Your task to perform on an android device: uninstall "LiveIn - Share Your Moment" Image 0: 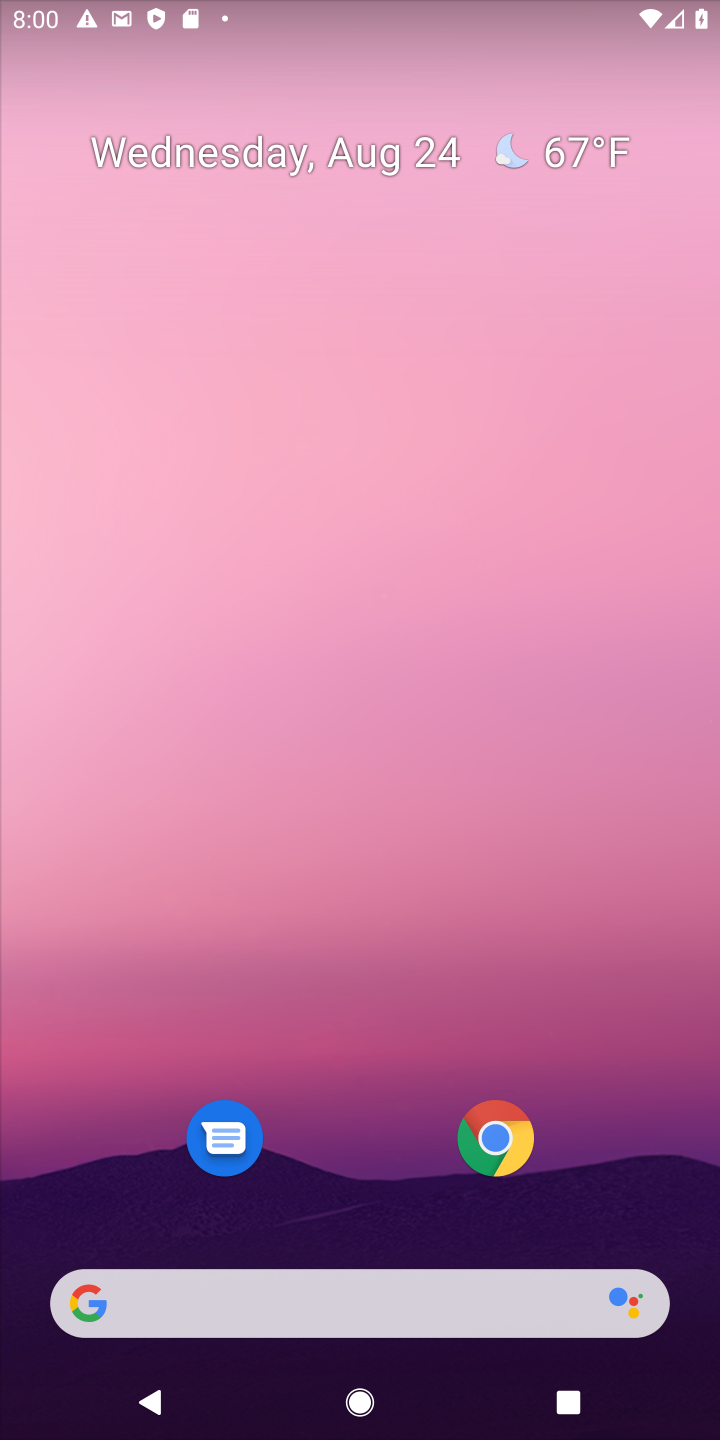
Step 0: drag from (328, 1250) to (705, 272)
Your task to perform on an android device: uninstall "LiveIn - Share Your Moment" Image 1: 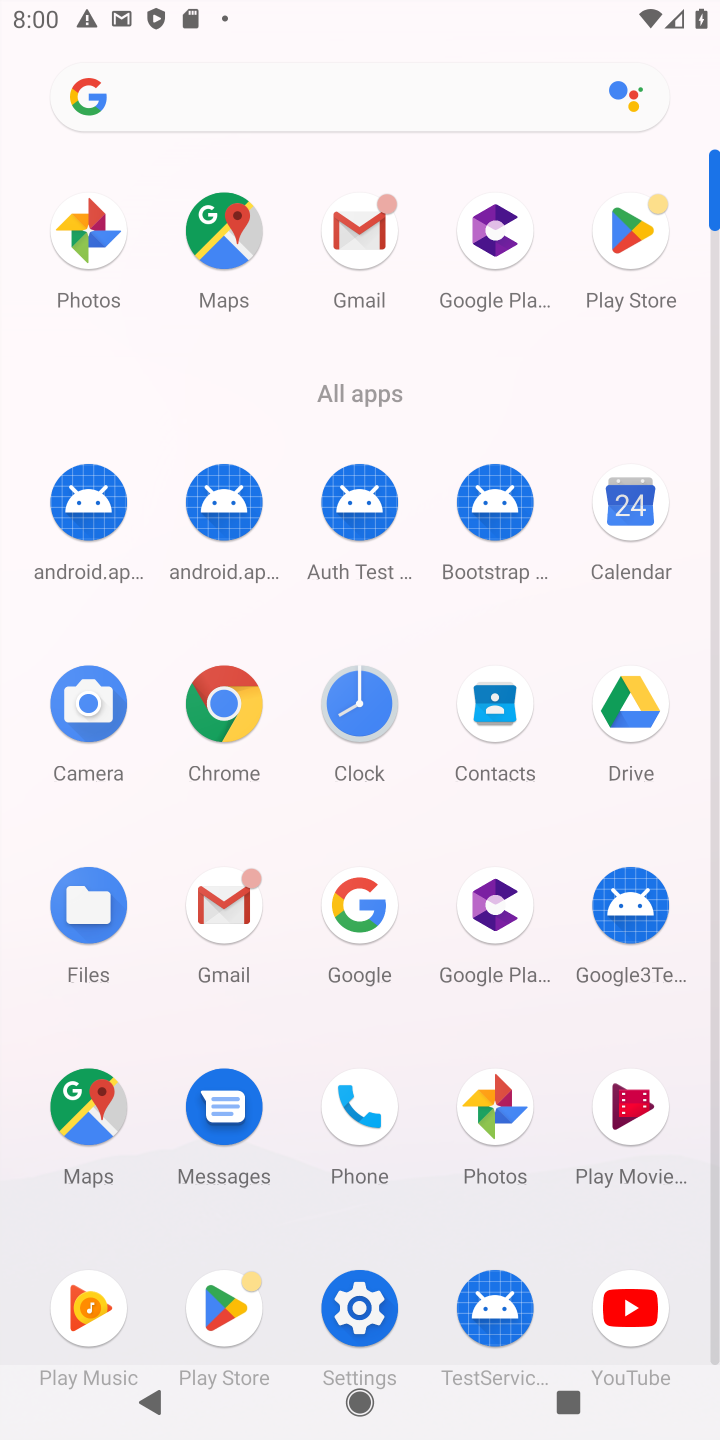
Step 1: click (616, 220)
Your task to perform on an android device: uninstall "LiveIn - Share Your Moment" Image 2: 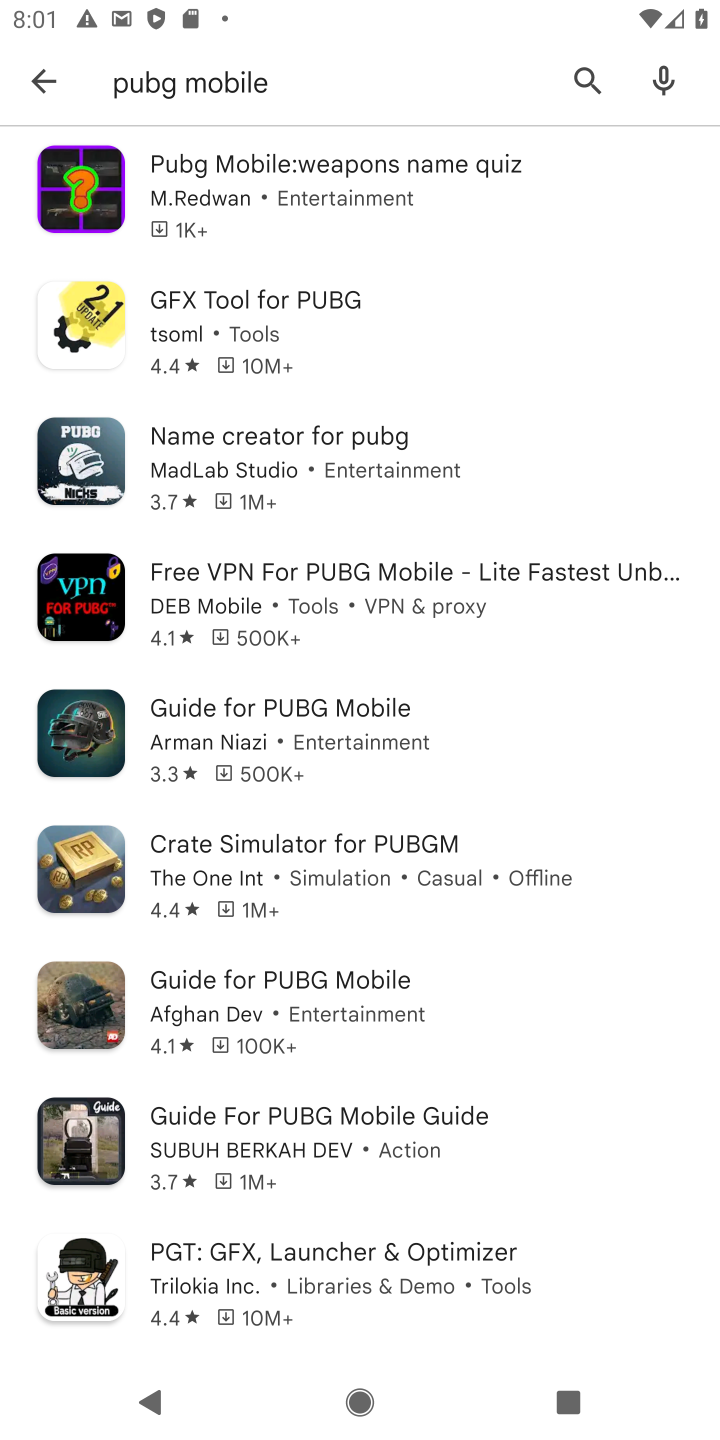
Step 2: click (34, 74)
Your task to perform on an android device: uninstall "LiveIn - Share Your Moment" Image 3: 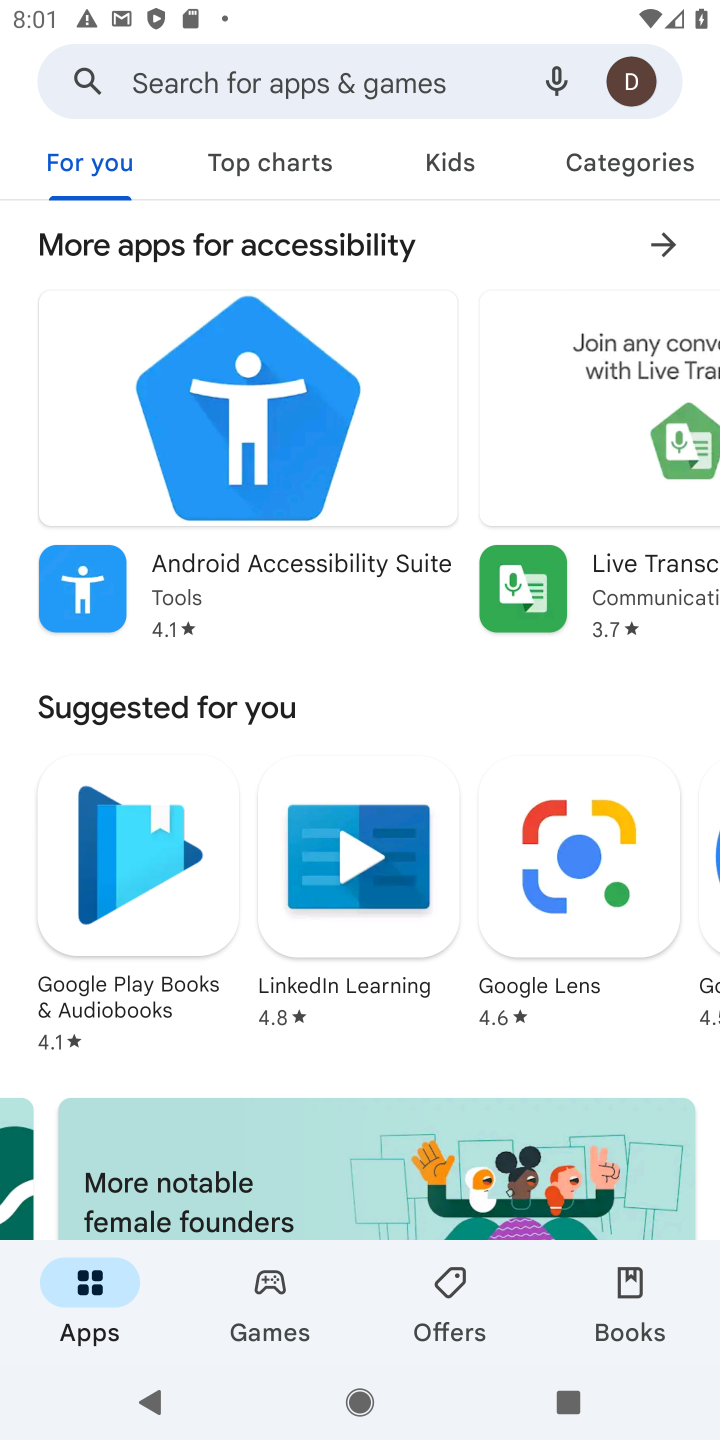
Step 3: click (123, 89)
Your task to perform on an android device: uninstall "LiveIn - Share Your Moment" Image 4: 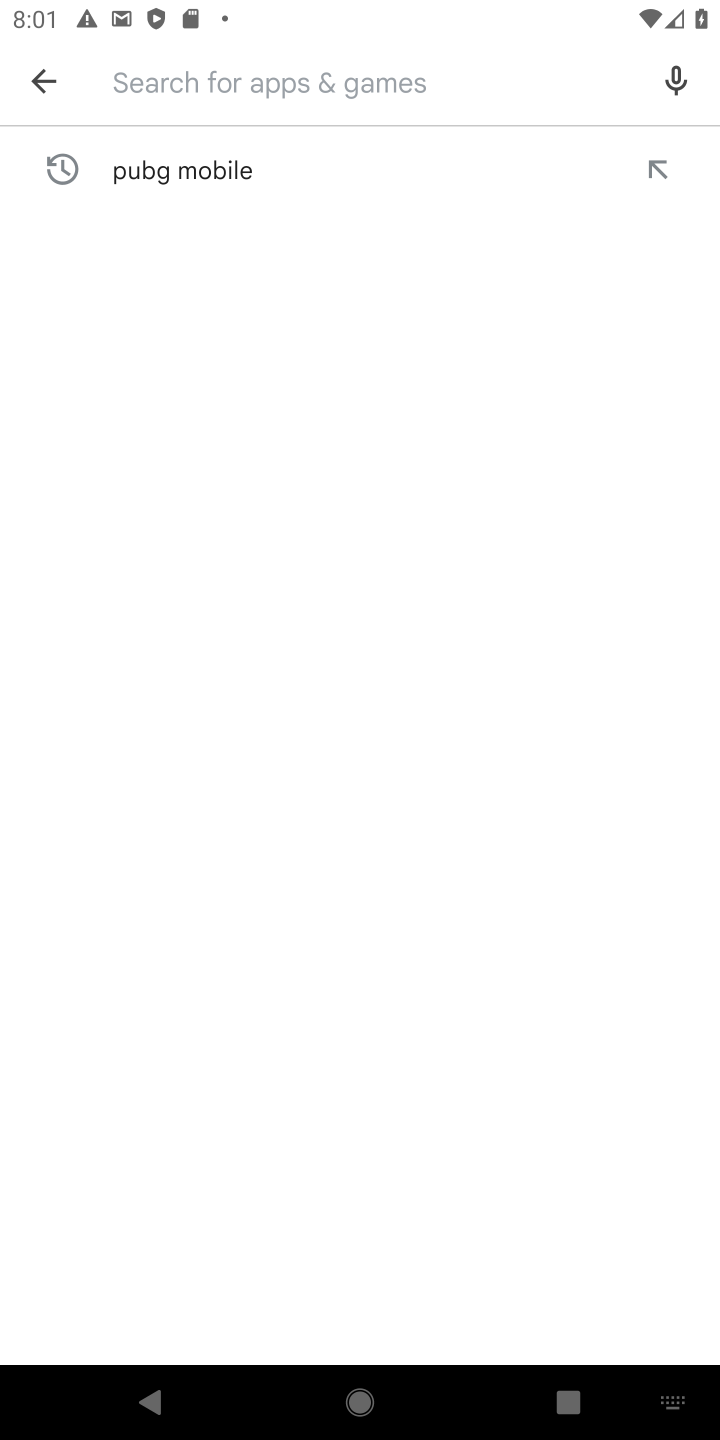
Step 4: type "LiveIn"
Your task to perform on an android device: uninstall "LiveIn - Share Your Moment" Image 5: 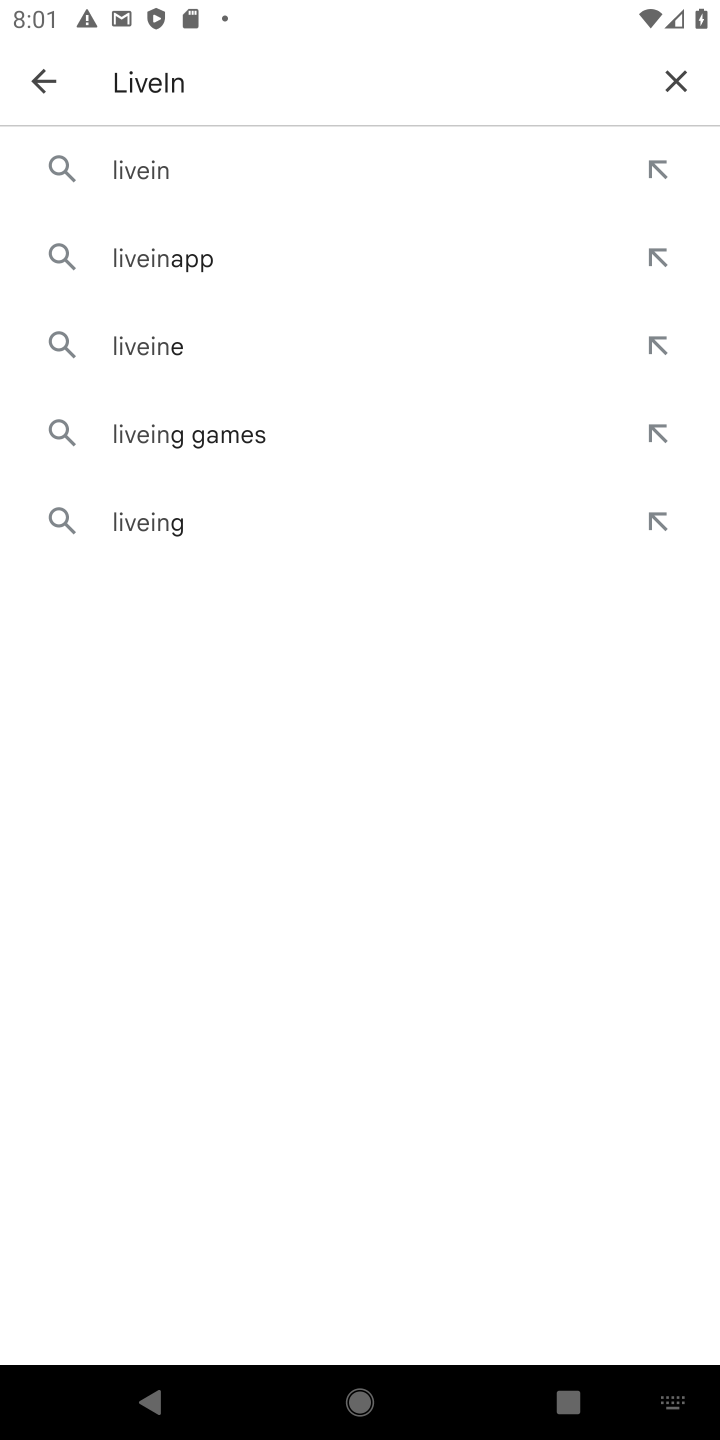
Step 5: click (138, 163)
Your task to perform on an android device: uninstall "LiveIn - Share Your Moment" Image 6: 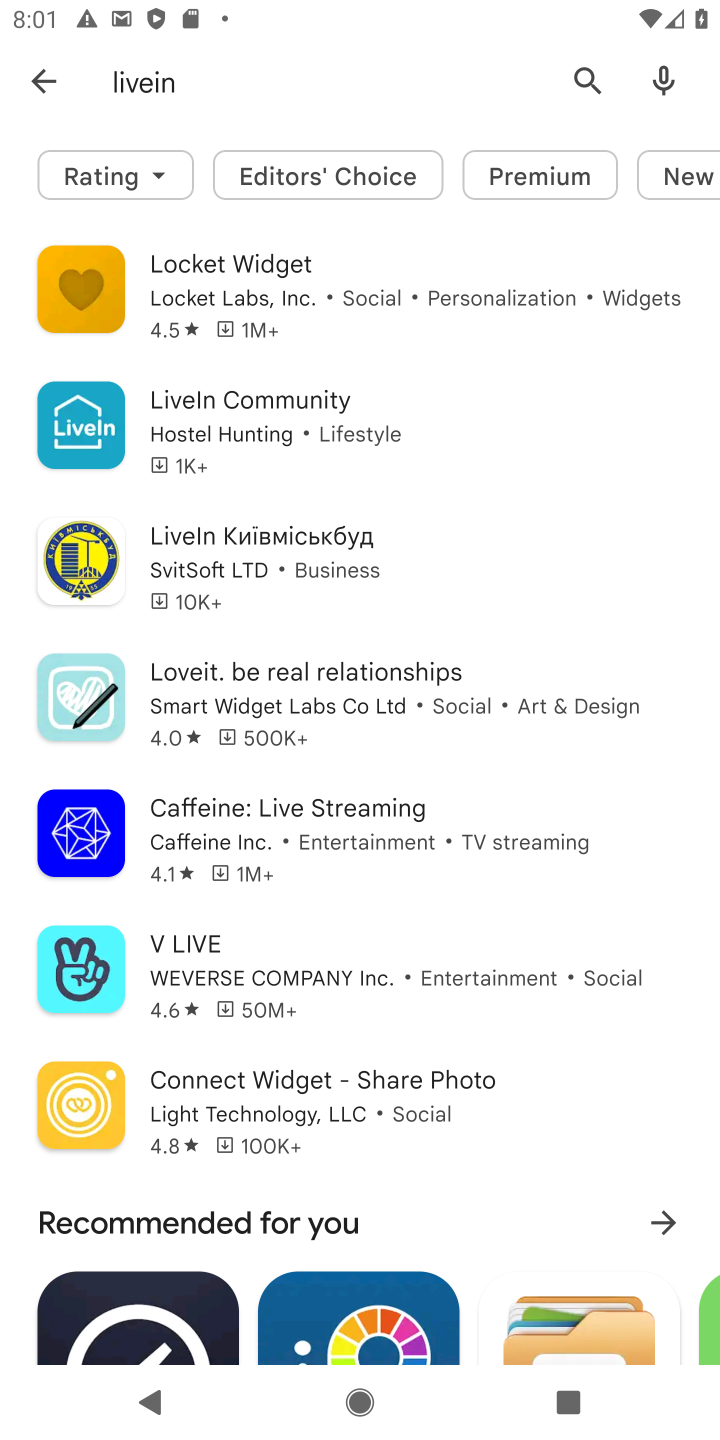
Step 6: task complete